Your task to perform on an android device: turn off improve location accuracy Image 0: 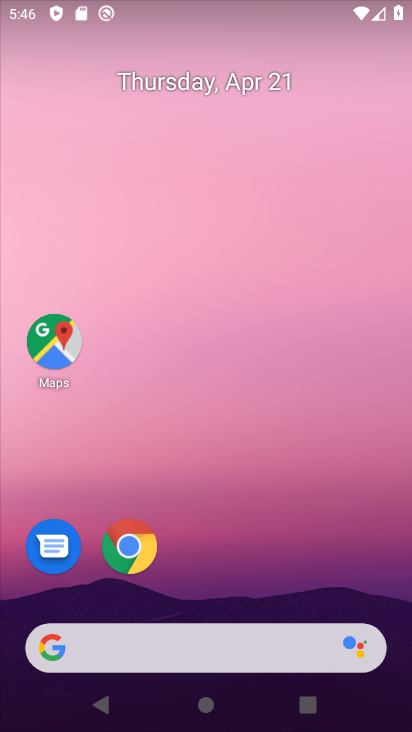
Step 0: click (166, 638)
Your task to perform on an android device: turn off improve location accuracy Image 1: 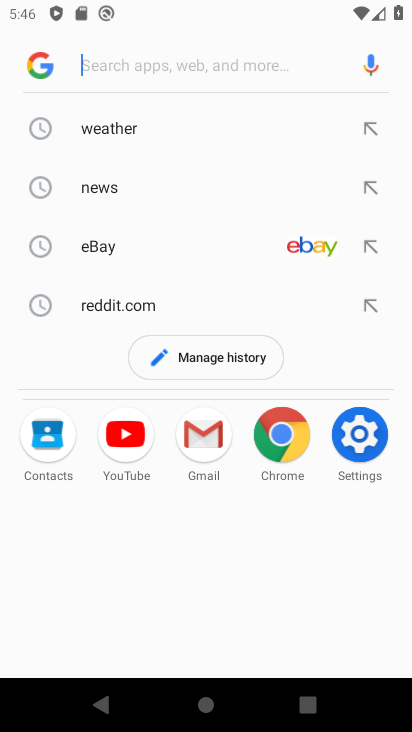
Step 1: click (165, 126)
Your task to perform on an android device: turn off improve location accuracy Image 2: 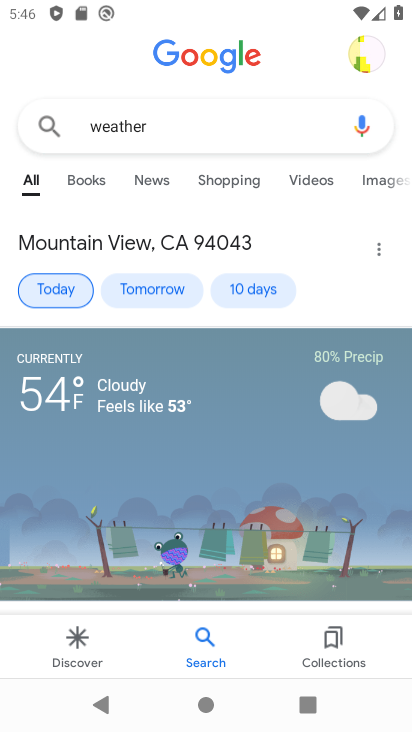
Step 2: task complete